Your task to perform on an android device: turn off wifi Image 0: 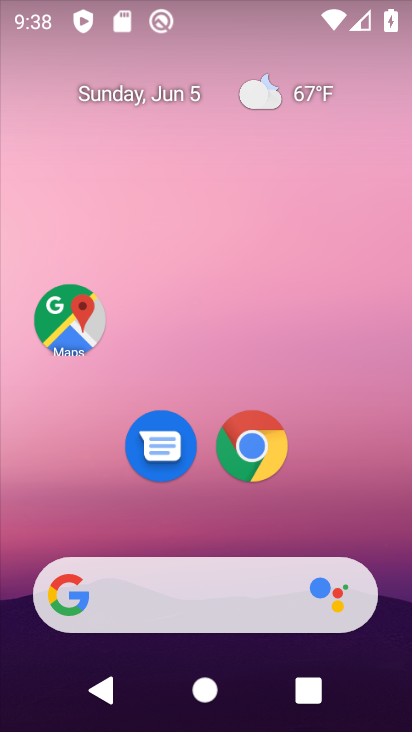
Step 0: drag from (192, 532) to (193, 106)
Your task to perform on an android device: turn off wifi Image 1: 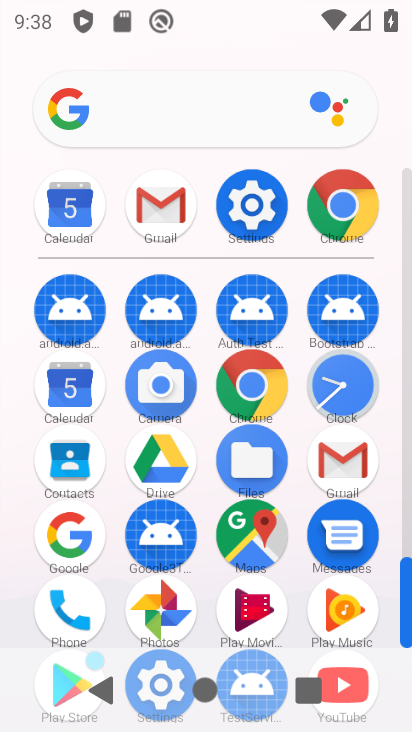
Step 1: click (250, 204)
Your task to perform on an android device: turn off wifi Image 2: 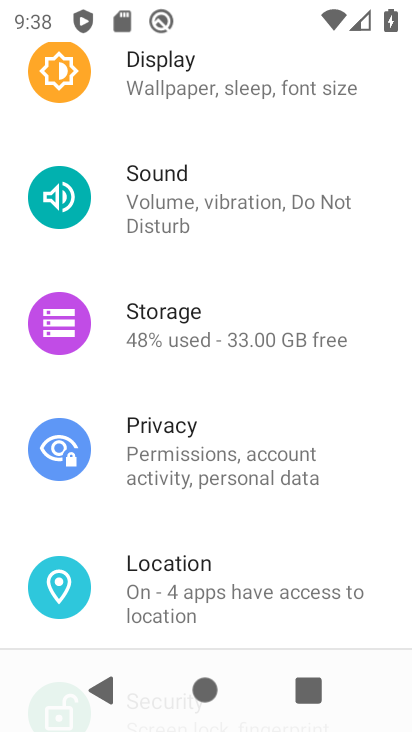
Step 2: drag from (250, 204) to (253, 566)
Your task to perform on an android device: turn off wifi Image 3: 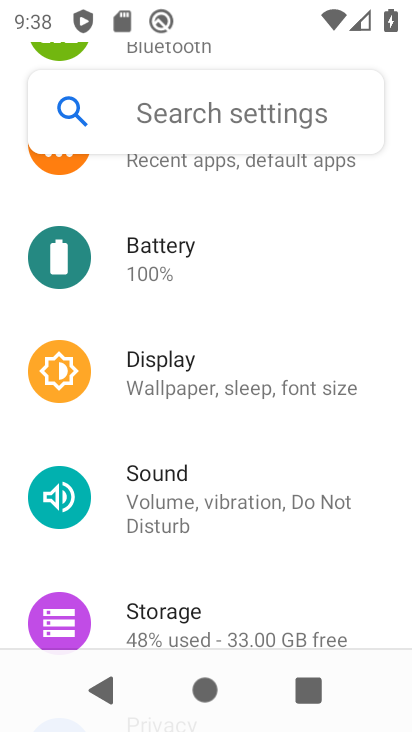
Step 3: drag from (225, 225) to (222, 603)
Your task to perform on an android device: turn off wifi Image 4: 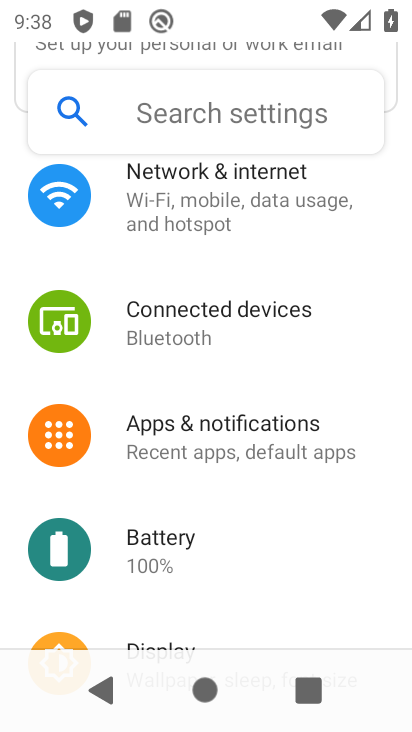
Step 4: drag from (206, 238) to (241, 483)
Your task to perform on an android device: turn off wifi Image 5: 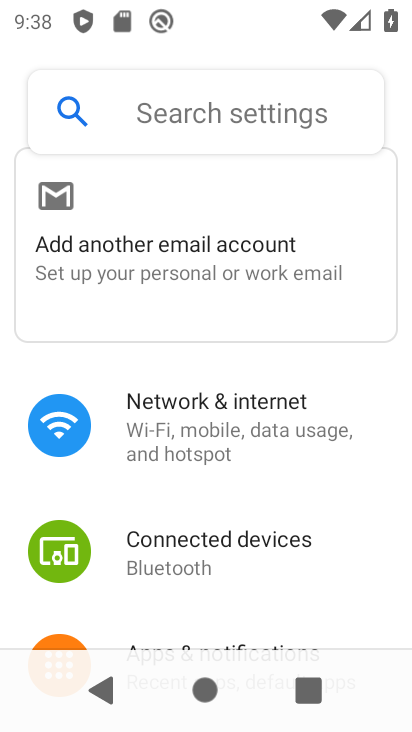
Step 5: click (192, 431)
Your task to perform on an android device: turn off wifi Image 6: 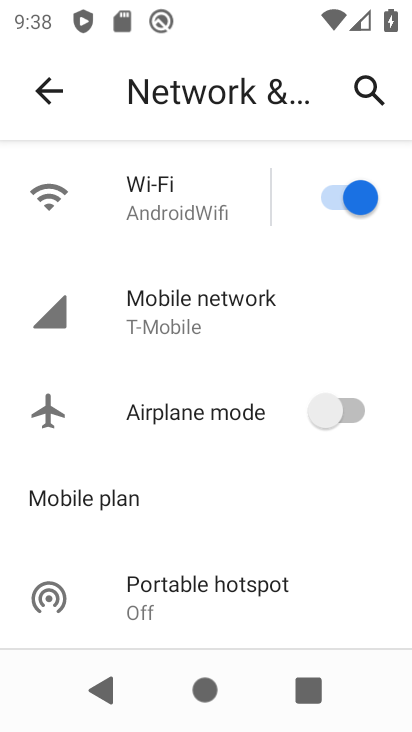
Step 6: click (323, 204)
Your task to perform on an android device: turn off wifi Image 7: 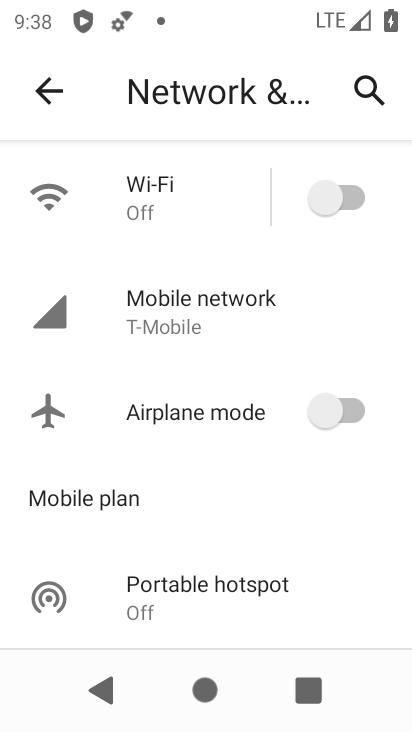
Step 7: task complete